Your task to perform on an android device: Open Google Chrome and click the shortcut for Amazon.com Image 0: 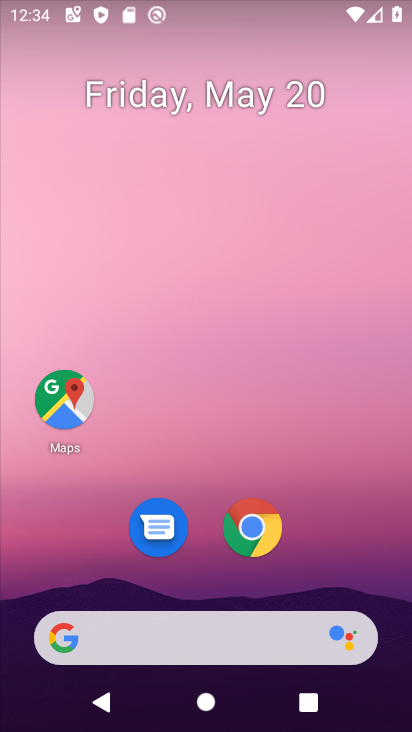
Step 0: drag from (205, 666) to (132, 2)
Your task to perform on an android device: Open Google Chrome and click the shortcut for Amazon.com Image 1: 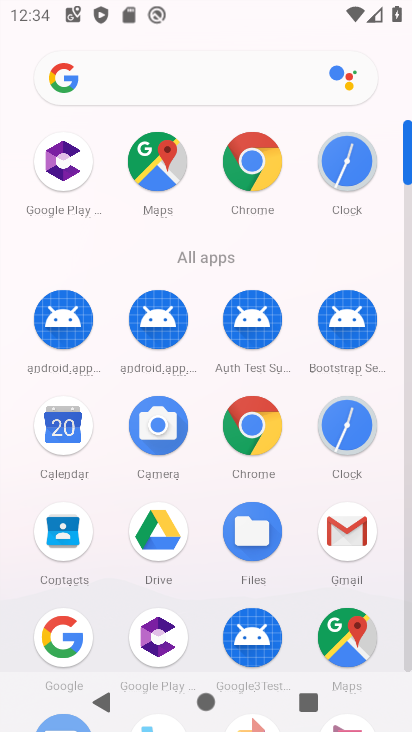
Step 1: click (243, 442)
Your task to perform on an android device: Open Google Chrome and click the shortcut for Amazon.com Image 2: 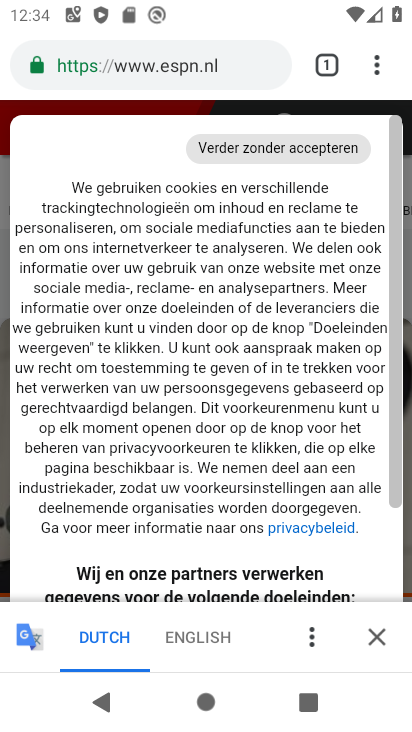
Step 2: drag from (243, 443) to (257, 184)
Your task to perform on an android device: Open Google Chrome and click the shortcut for Amazon.com Image 3: 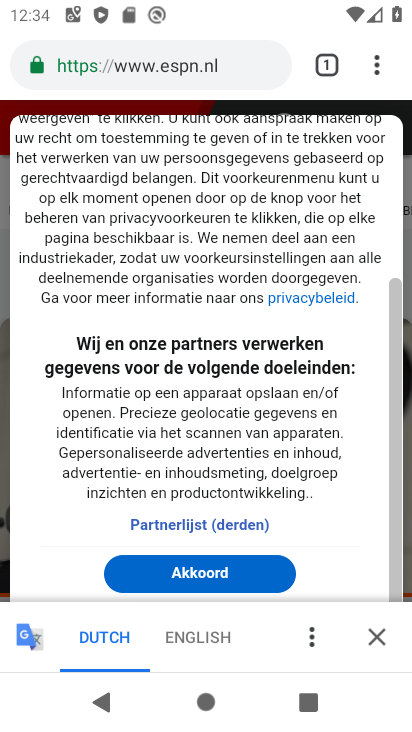
Step 3: click (229, 559)
Your task to perform on an android device: Open Google Chrome and click the shortcut for Amazon.com Image 4: 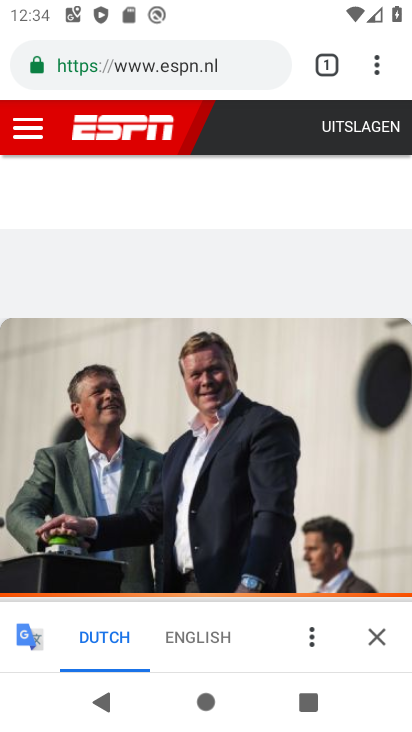
Step 4: click (379, 75)
Your task to perform on an android device: Open Google Chrome and click the shortcut for Amazon.com Image 5: 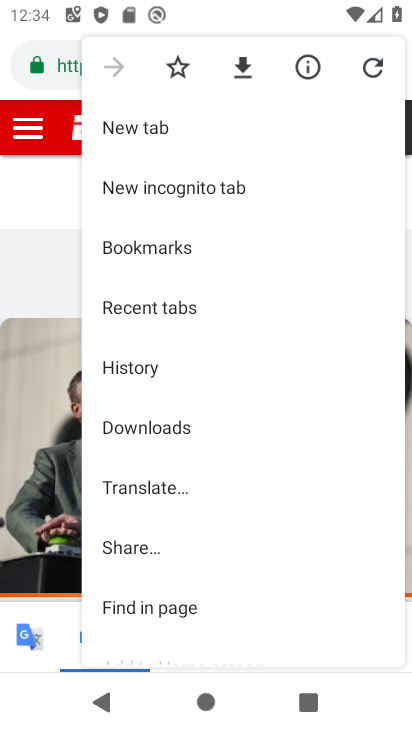
Step 5: drag from (226, 559) to (254, 353)
Your task to perform on an android device: Open Google Chrome and click the shortcut for Amazon.com Image 6: 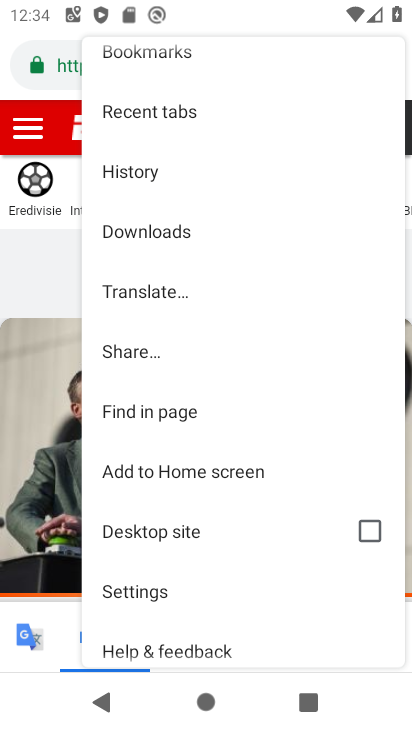
Step 6: drag from (149, 157) to (209, 465)
Your task to perform on an android device: Open Google Chrome and click the shortcut for Amazon.com Image 7: 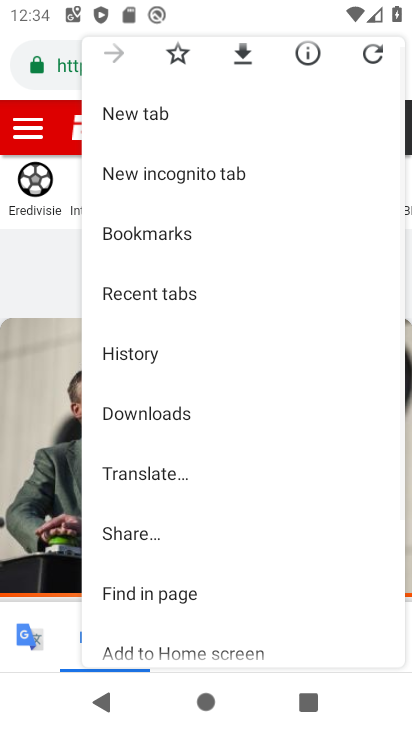
Step 7: click (127, 131)
Your task to perform on an android device: Open Google Chrome and click the shortcut for Amazon.com Image 8: 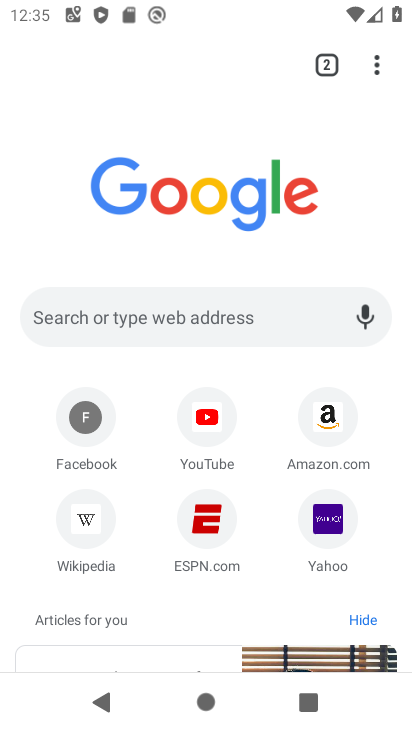
Step 8: click (328, 417)
Your task to perform on an android device: Open Google Chrome and click the shortcut for Amazon.com Image 9: 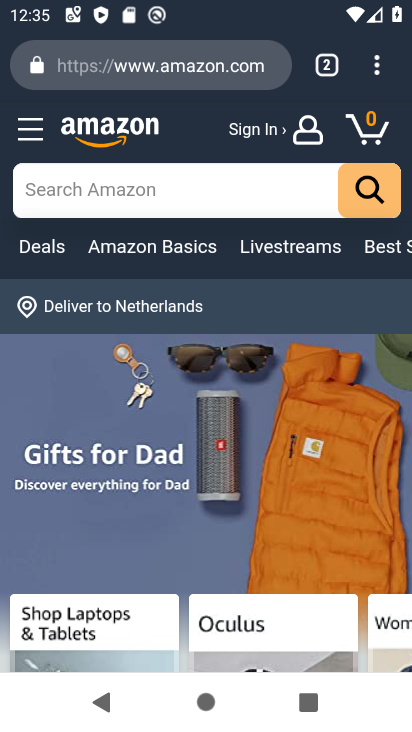
Step 9: click (363, 87)
Your task to perform on an android device: Open Google Chrome and click the shortcut for Amazon.com Image 10: 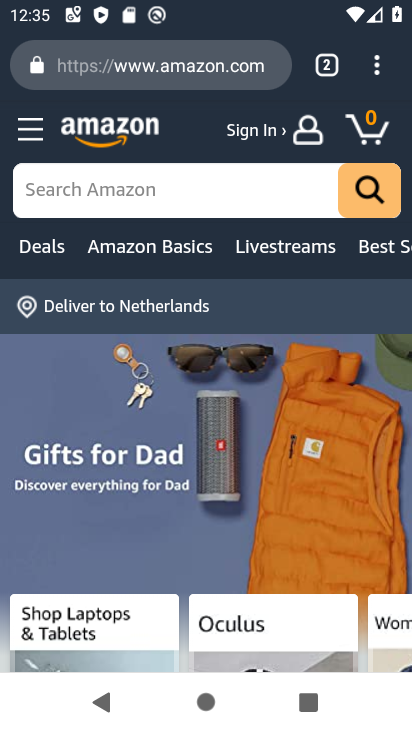
Step 10: click (369, 69)
Your task to perform on an android device: Open Google Chrome and click the shortcut for Amazon.com Image 11: 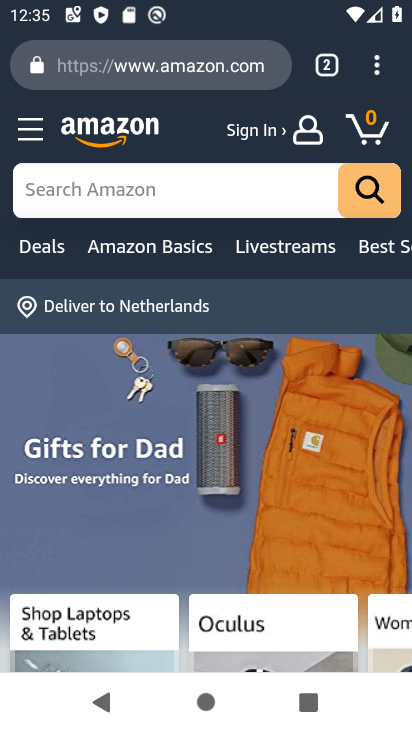
Step 11: click (376, 79)
Your task to perform on an android device: Open Google Chrome and click the shortcut for Amazon.com Image 12: 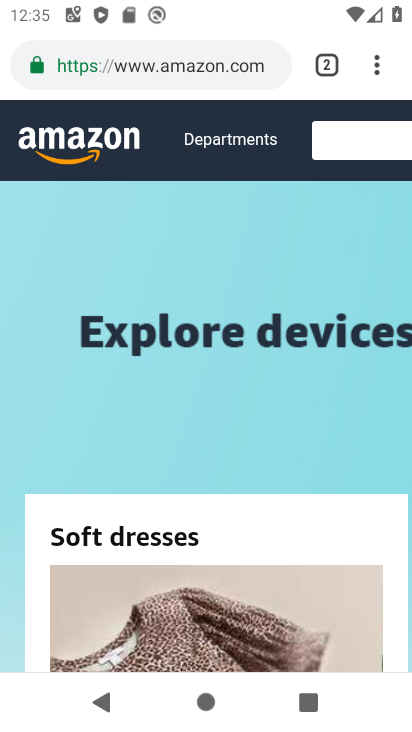
Step 12: click (385, 76)
Your task to perform on an android device: Open Google Chrome and click the shortcut for Amazon.com Image 13: 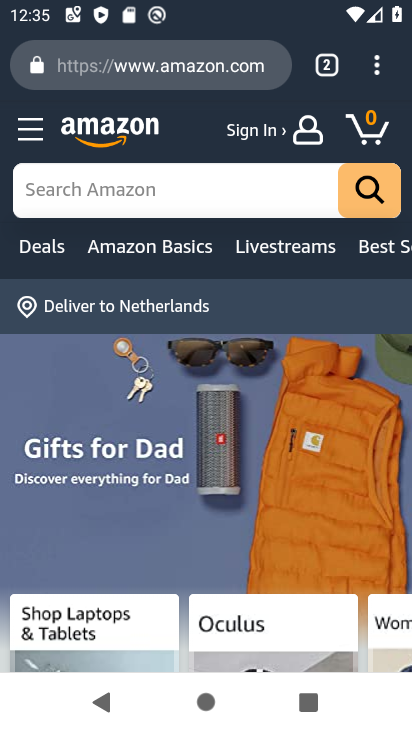
Step 13: click (378, 81)
Your task to perform on an android device: Open Google Chrome and click the shortcut for Amazon.com Image 14: 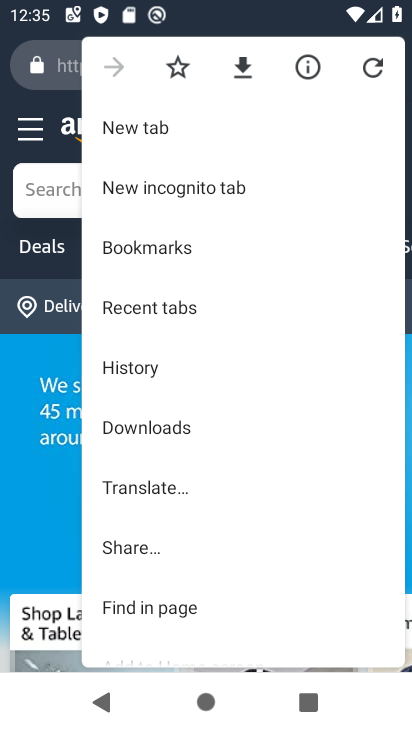
Step 14: drag from (295, 408) to (274, 227)
Your task to perform on an android device: Open Google Chrome and click the shortcut for Amazon.com Image 15: 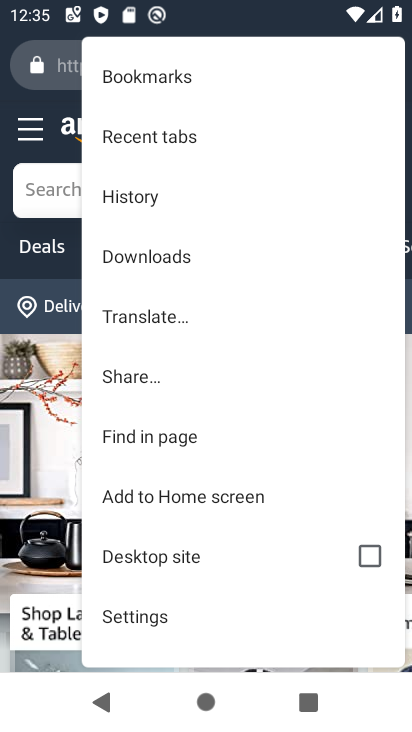
Step 15: click (197, 503)
Your task to perform on an android device: Open Google Chrome and click the shortcut for Amazon.com Image 16: 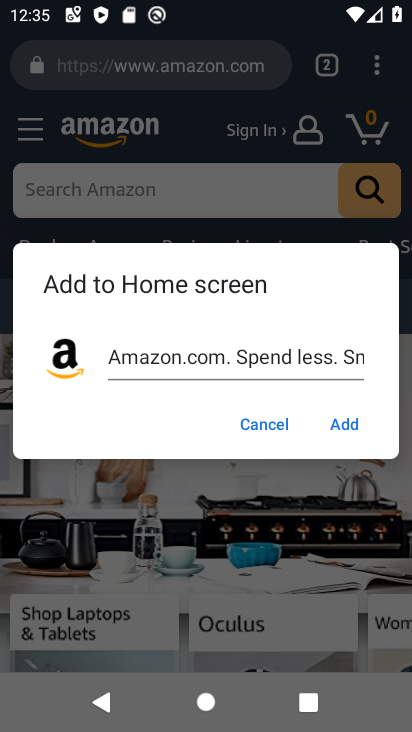
Step 16: click (334, 426)
Your task to perform on an android device: Open Google Chrome and click the shortcut for Amazon.com Image 17: 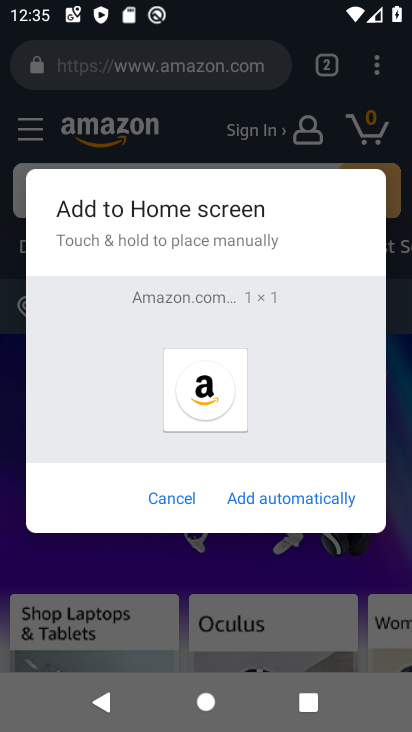
Step 17: click (288, 496)
Your task to perform on an android device: Open Google Chrome and click the shortcut for Amazon.com Image 18: 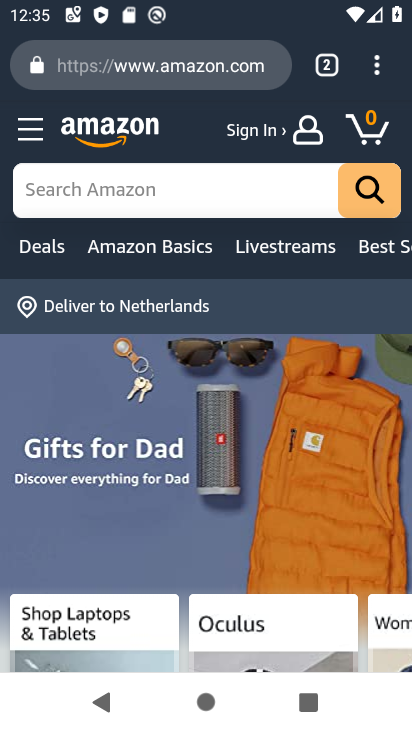
Step 18: task complete